Your task to perform on an android device: move a message to another label in the gmail app Image 0: 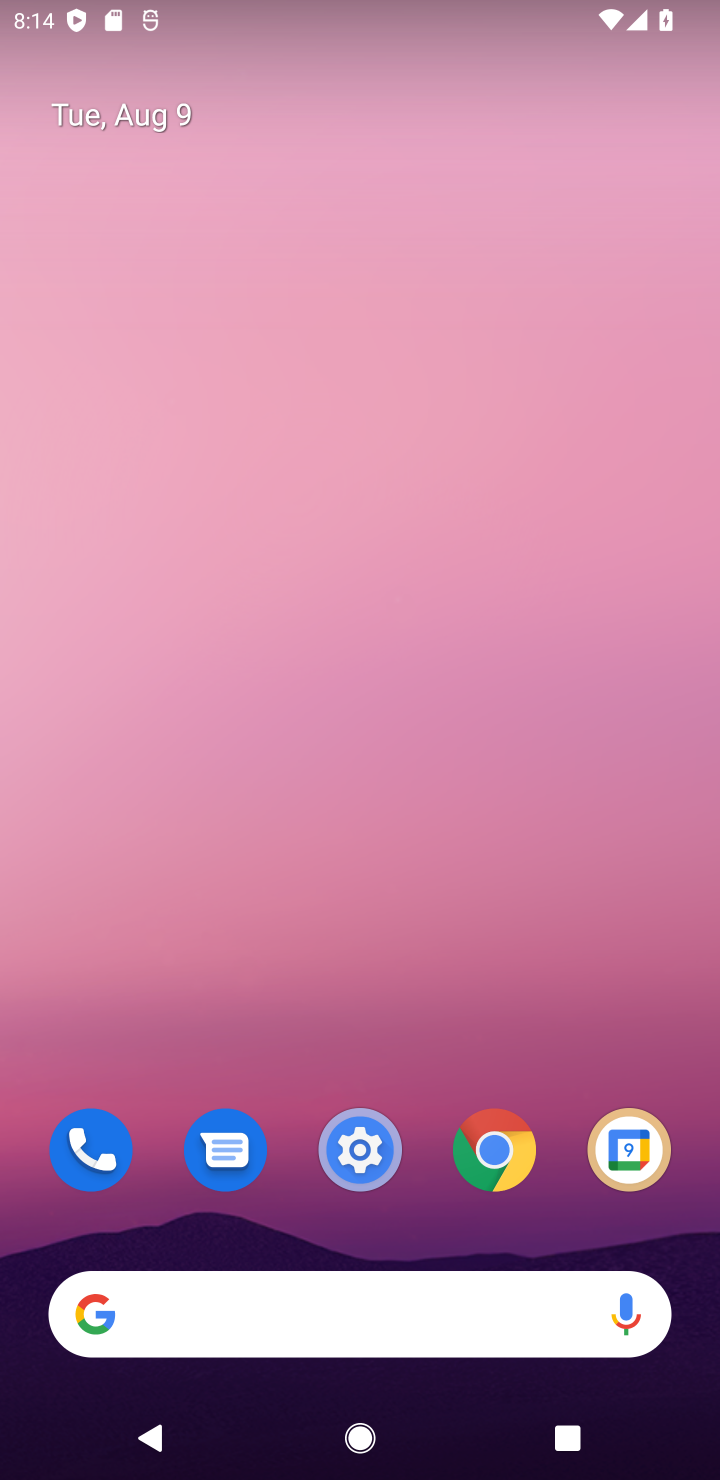
Step 0: press home button
Your task to perform on an android device: move a message to another label in the gmail app Image 1: 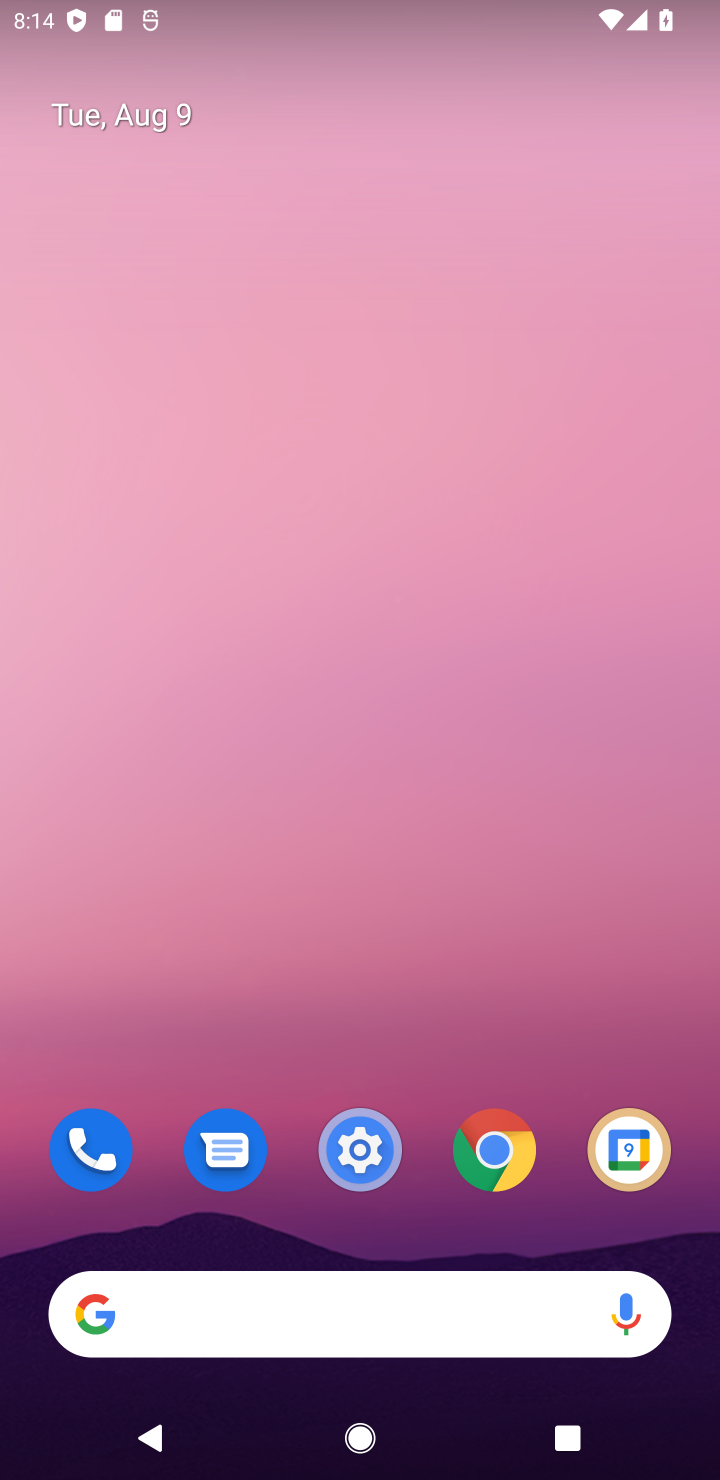
Step 1: drag from (413, 1033) to (568, 381)
Your task to perform on an android device: move a message to another label in the gmail app Image 2: 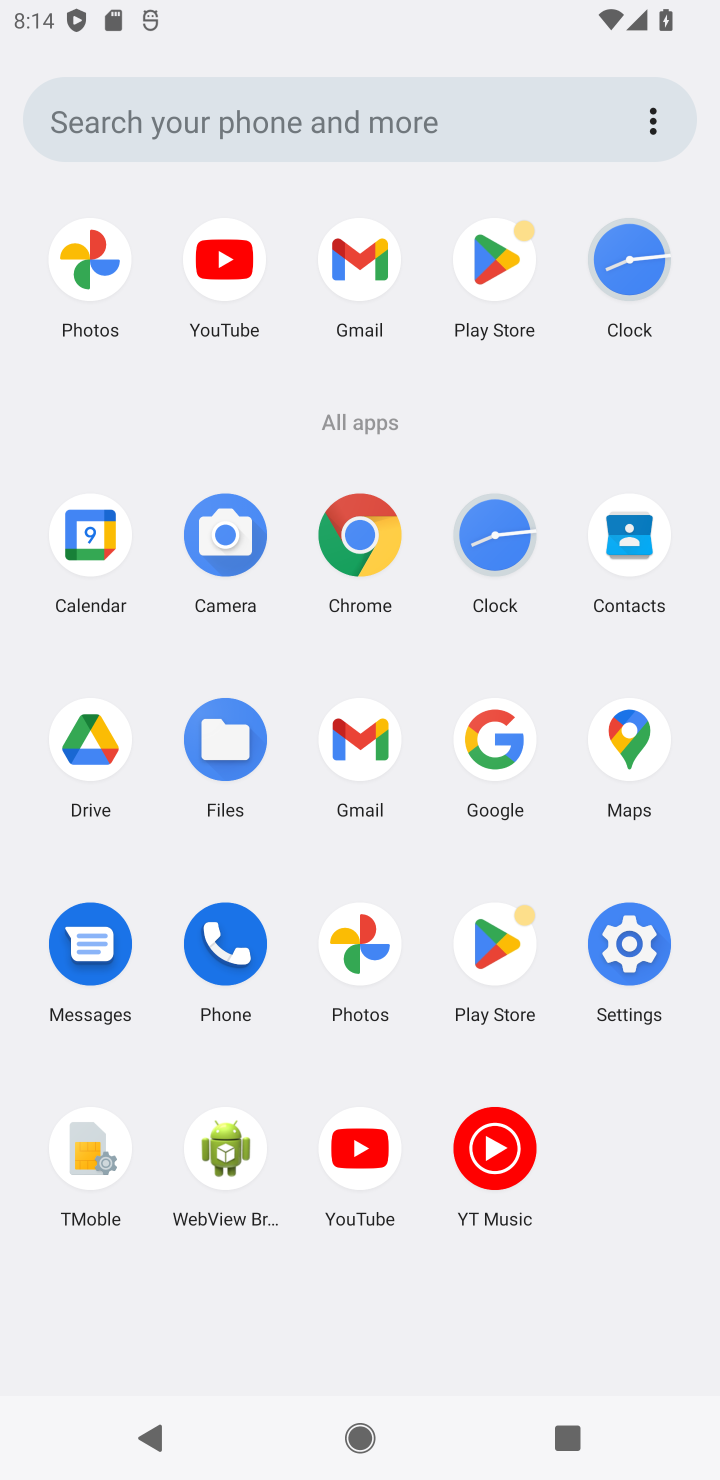
Step 2: click (360, 245)
Your task to perform on an android device: move a message to another label in the gmail app Image 3: 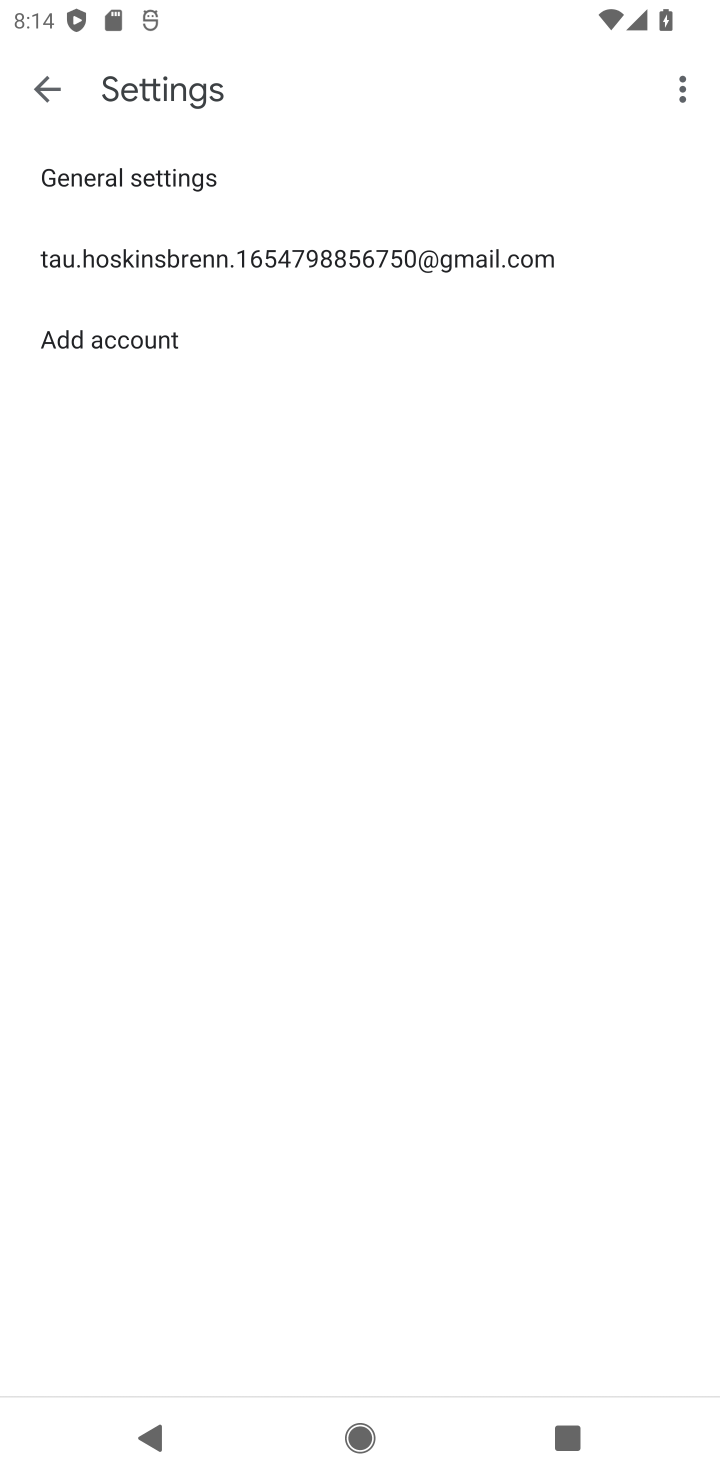
Step 3: click (49, 103)
Your task to perform on an android device: move a message to another label in the gmail app Image 4: 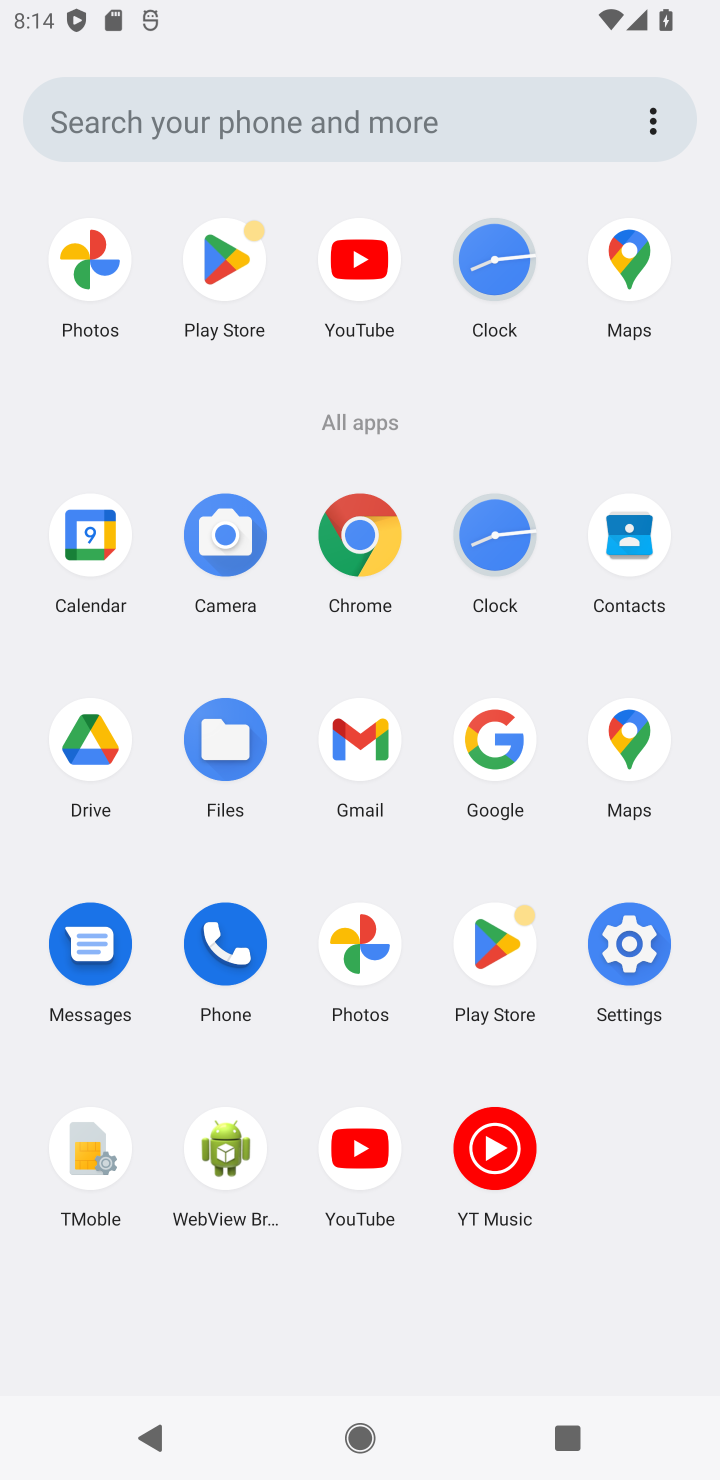
Step 4: click (356, 759)
Your task to perform on an android device: move a message to another label in the gmail app Image 5: 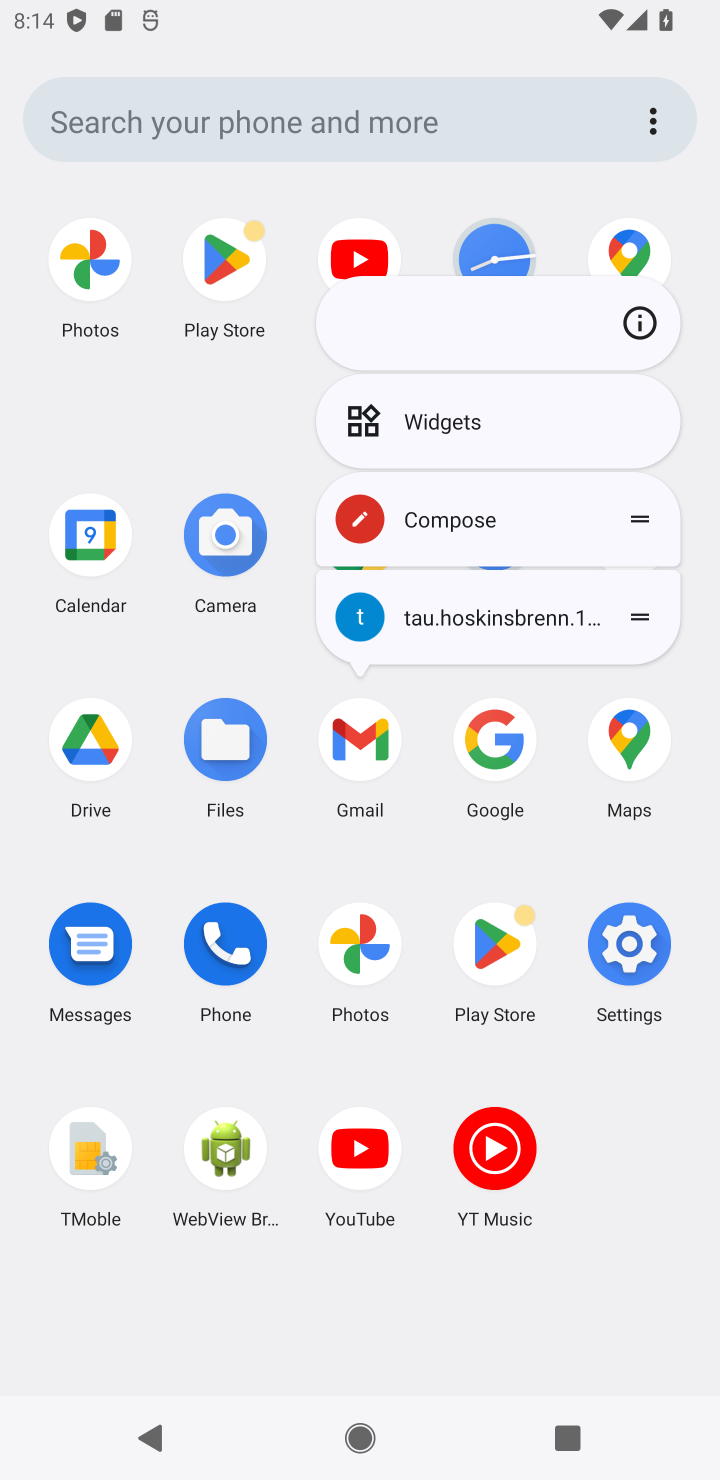
Step 5: click (356, 758)
Your task to perform on an android device: move a message to another label in the gmail app Image 6: 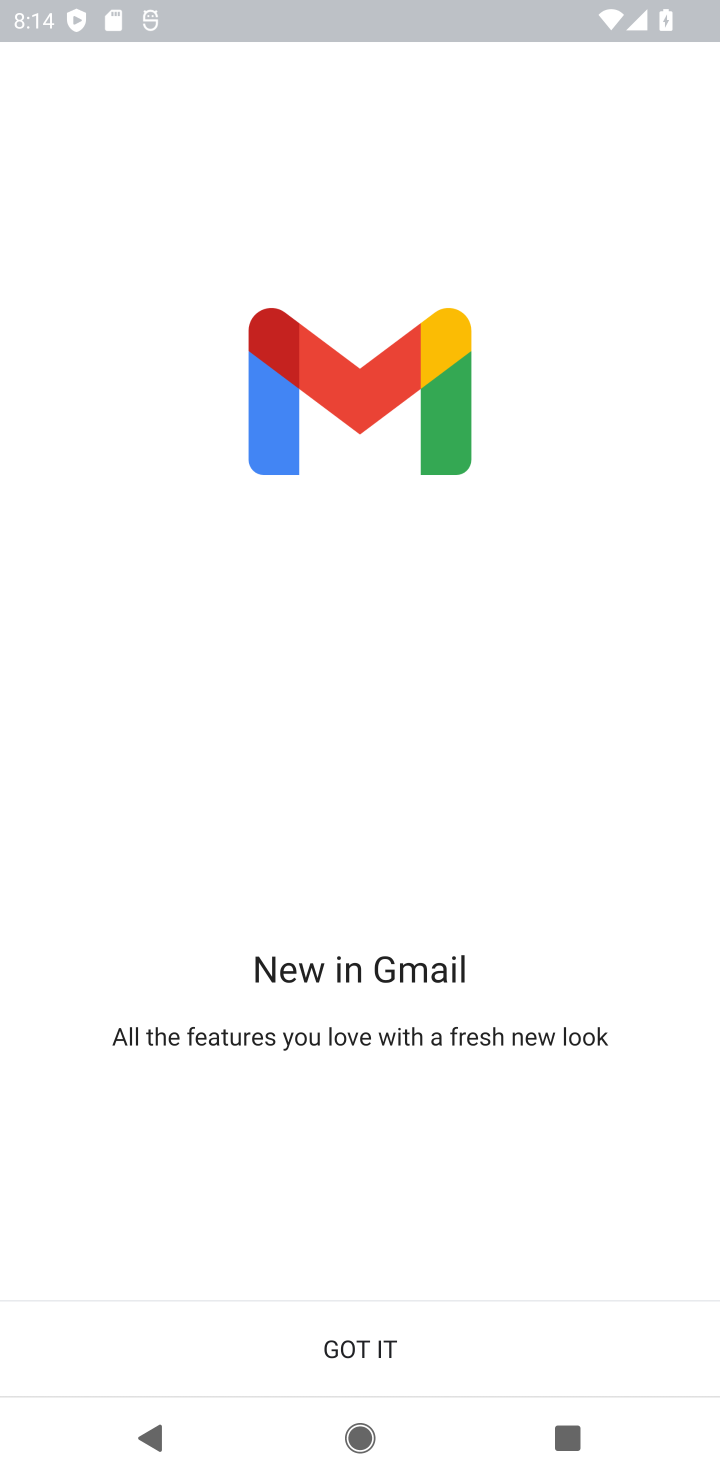
Step 6: click (356, 1357)
Your task to perform on an android device: move a message to another label in the gmail app Image 7: 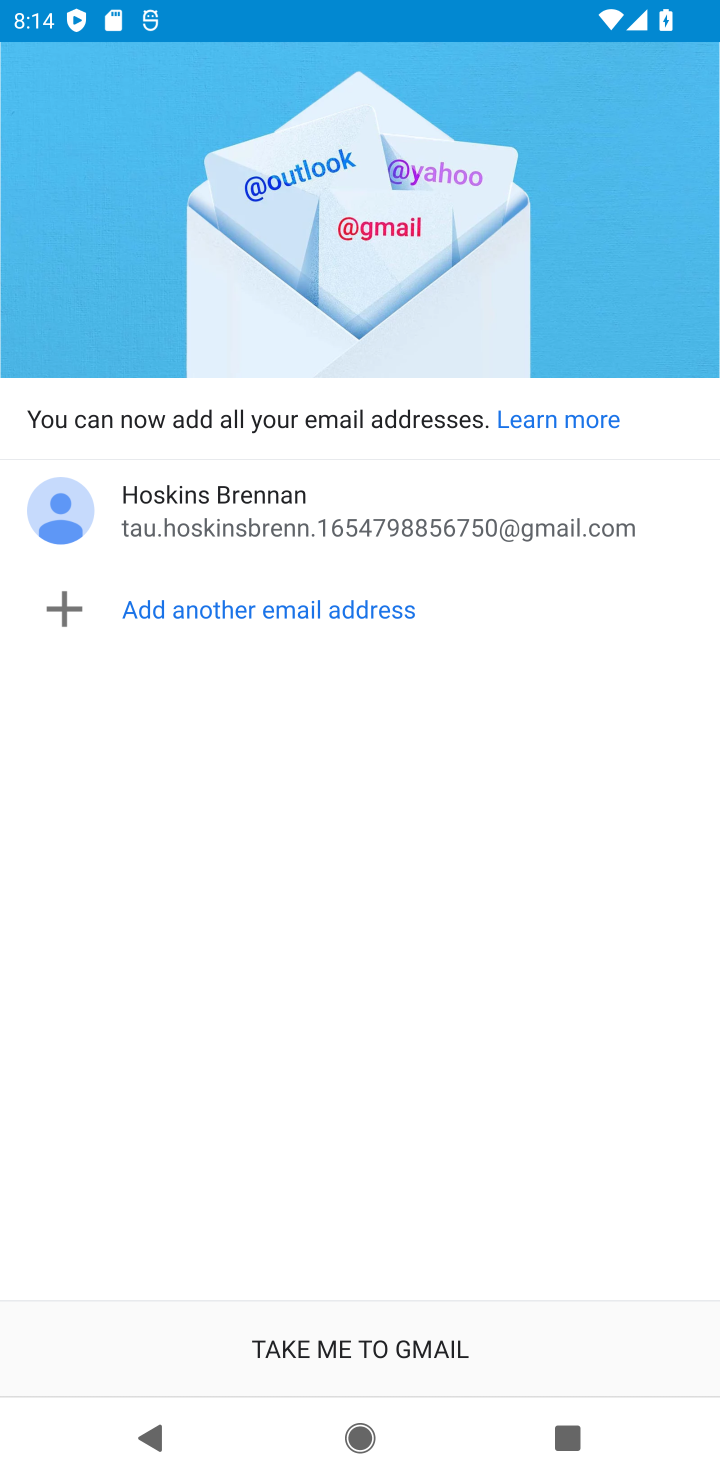
Step 7: click (332, 1340)
Your task to perform on an android device: move a message to another label in the gmail app Image 8: 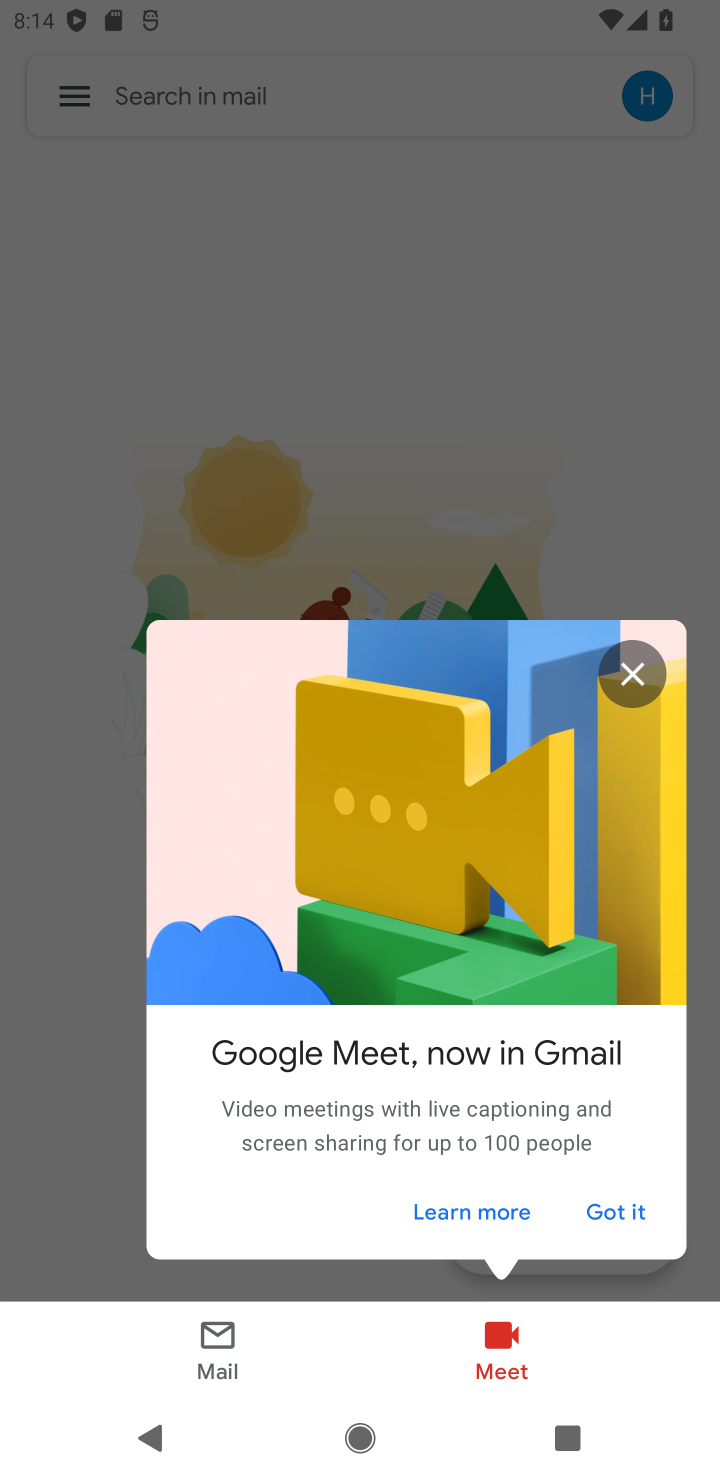
Step 8: click (607, 1201)
Your task to perform on an android device: move a message to another label in the gmail app Image 9: 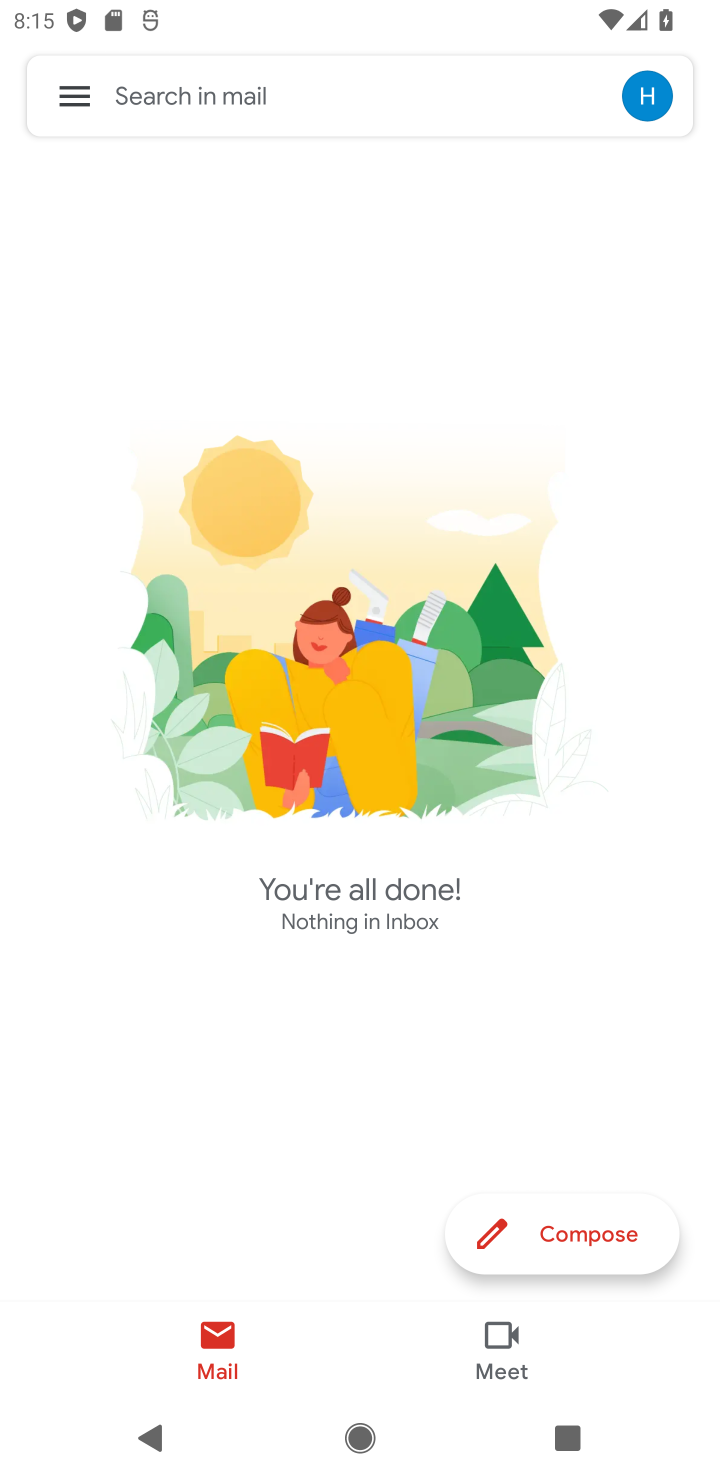
Step 9: click (74, 93)
Your task to perform on an android device: move a message to another label in the gmail app Image 10: 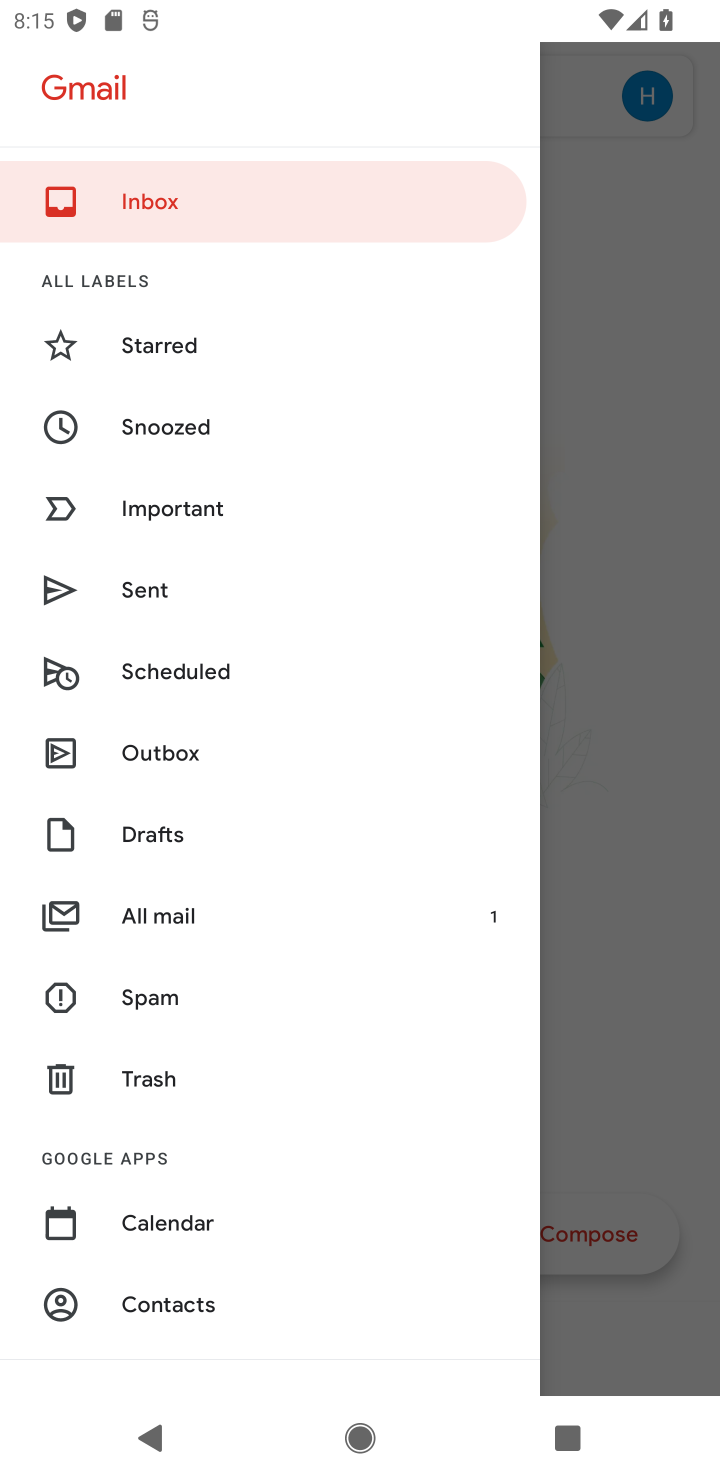
Step 10: click (186, 912)
Your task to perform on an android device: move a message to another label in the gmail app Image 11: 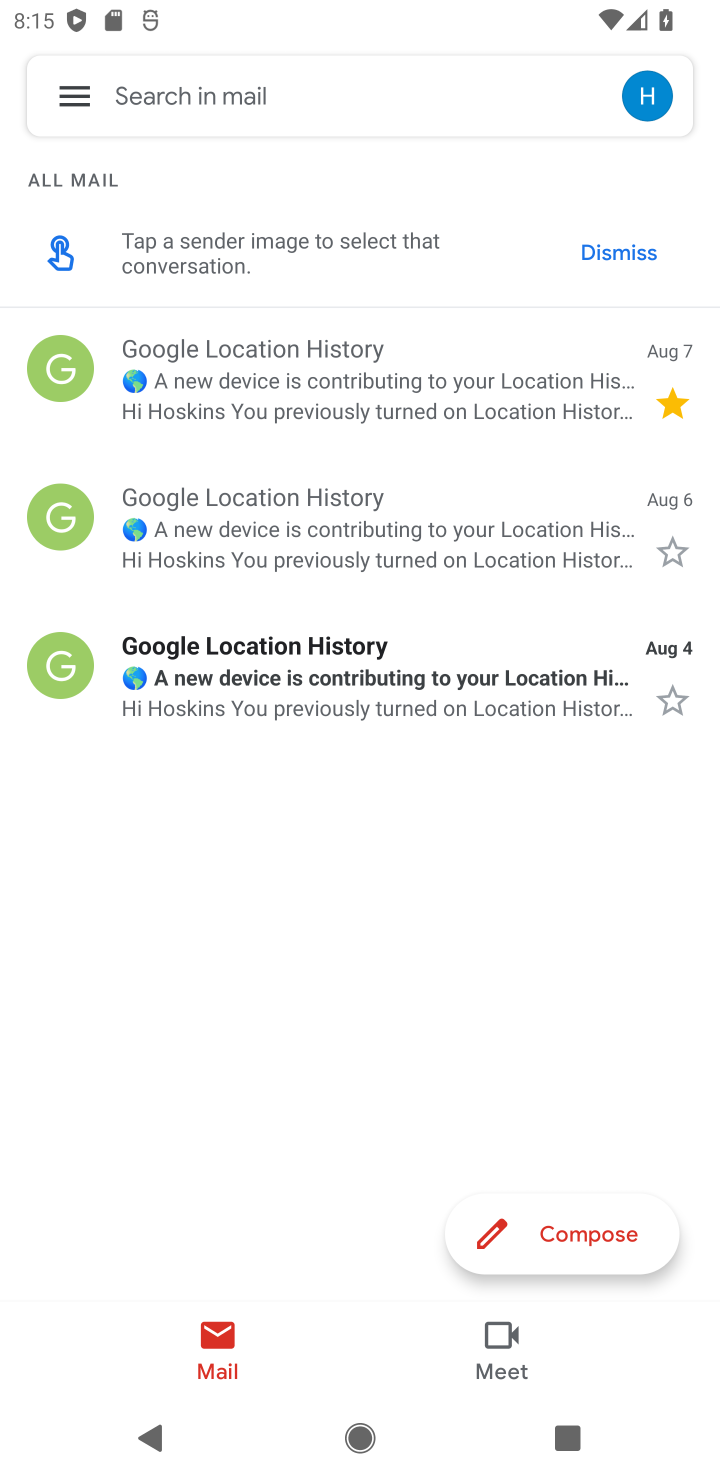
Step 11: click (76, 362)
Your task to perform on an android device: move a message to another label in the gmail app Image 12: 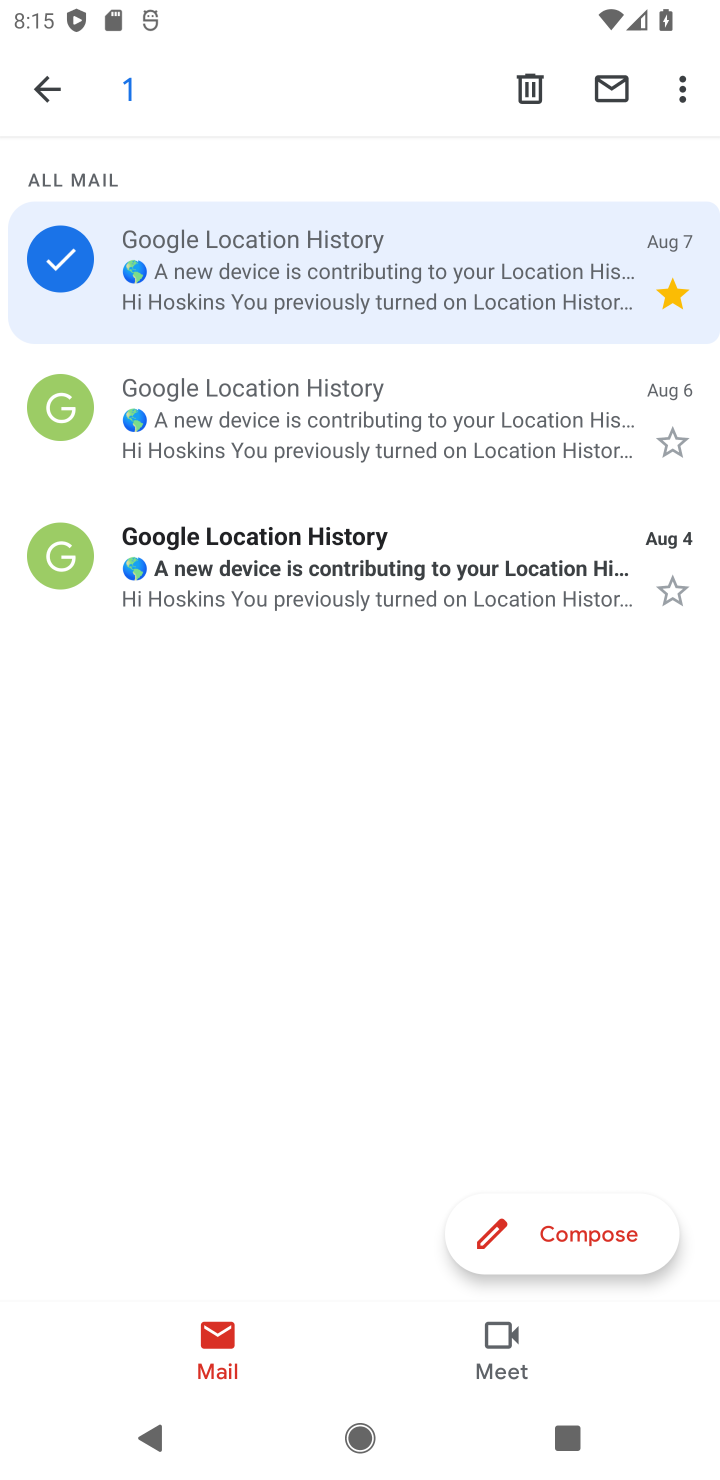
Step 12: click (655, 97)
Your task to perform on an android device: move a message to another label in the gmail app Image 13: 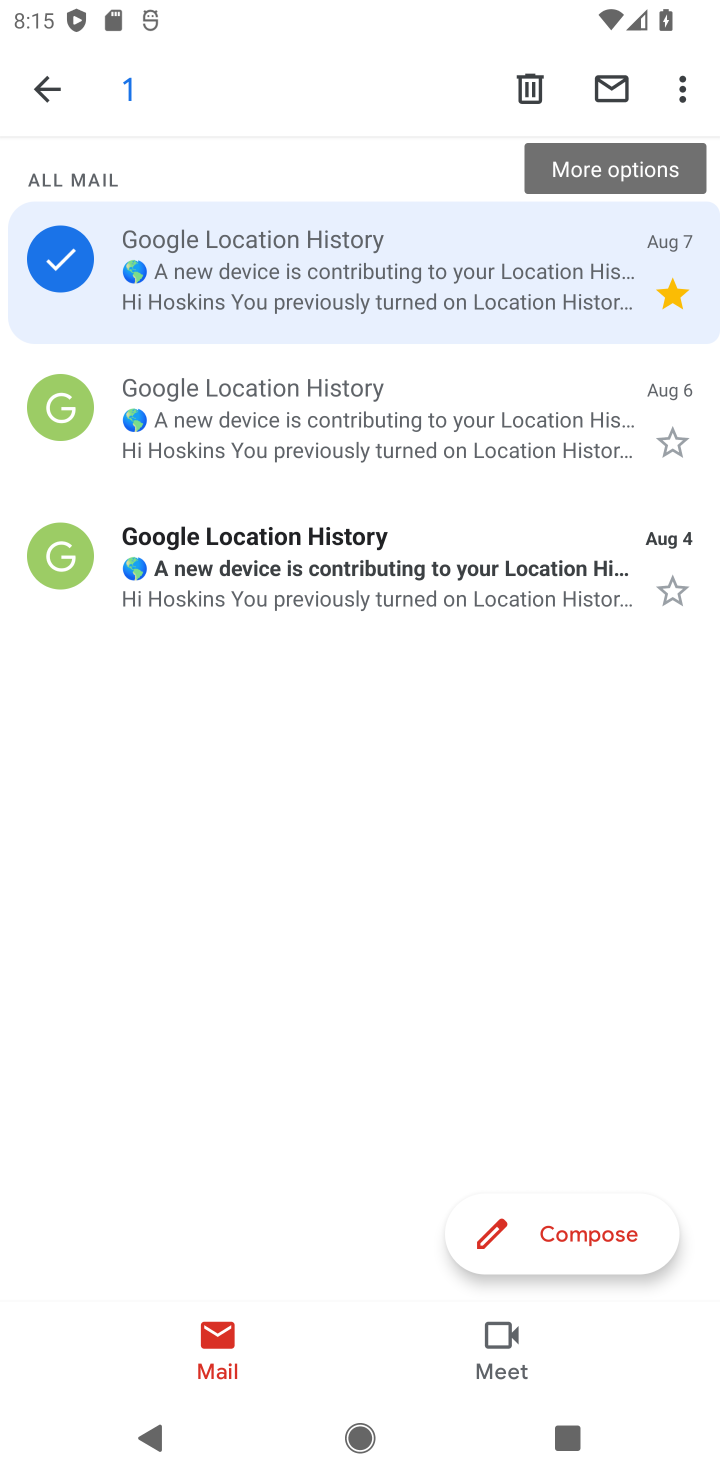
Step 13: click (677, 96)
Your task to perform on an android device: move a message to another label in the gmail app Image 14: 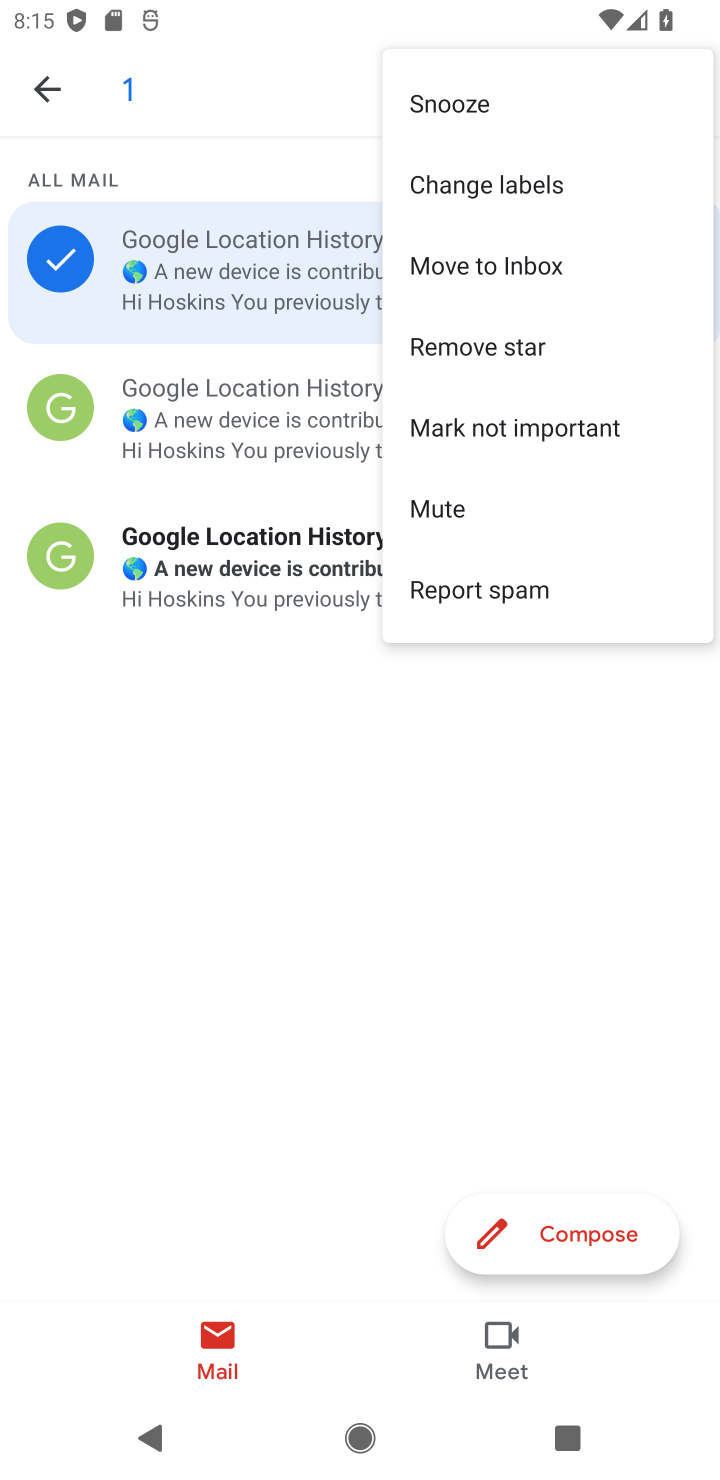
Step 14: click (519, 260)
Your task to perform on an android device: move a message to another label in the gmail app Image 15: 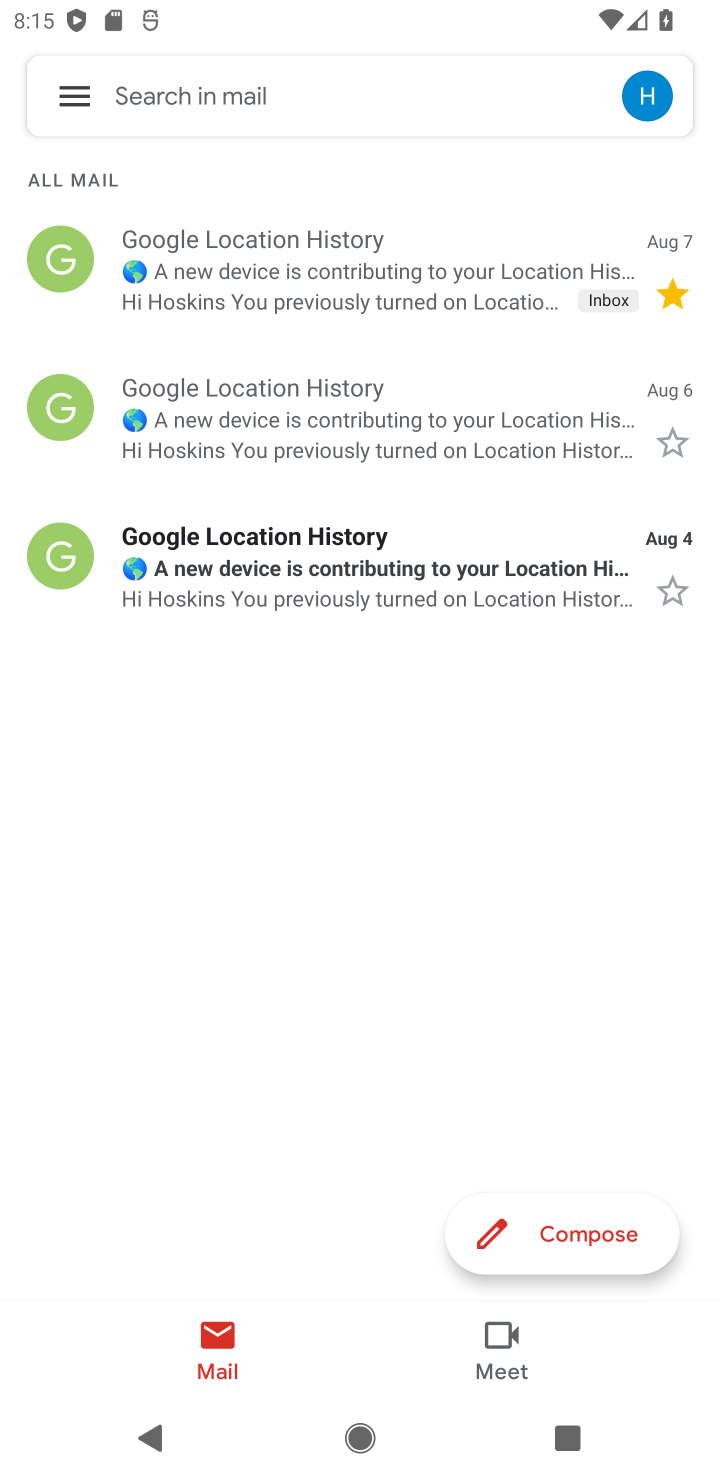
Step 15: task complete